Your task to perform on an android device: What time is it in Berlin? Image 0: 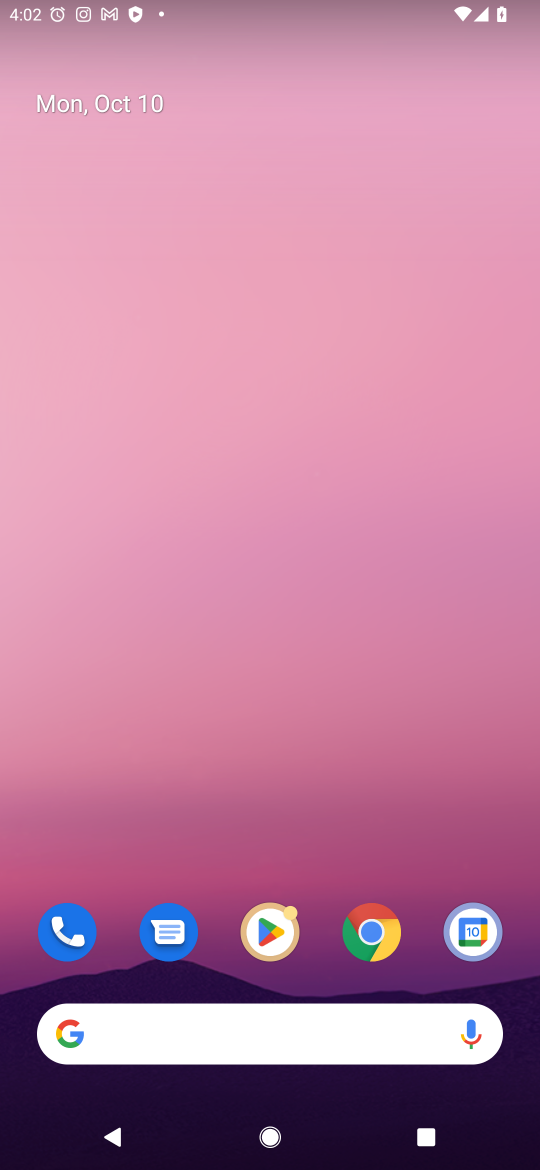
Step 0: press home button
Your task to perform on an android device: What time is it in Berlin? Image 1: 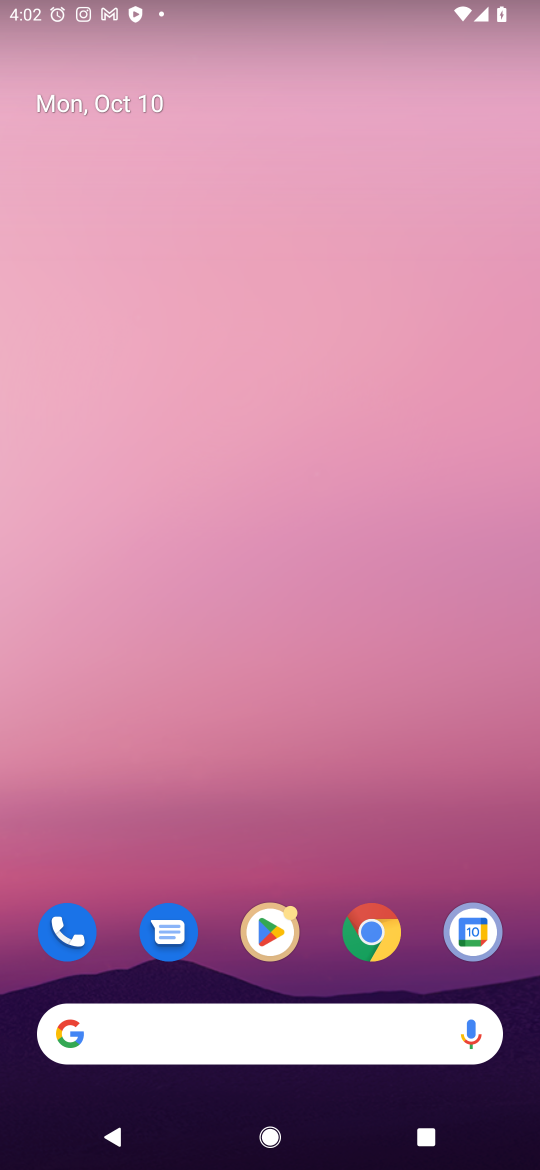
Step 1: click (305, 1037)
Your task to perform on an android device: What time is it in Berlin? Image 2: 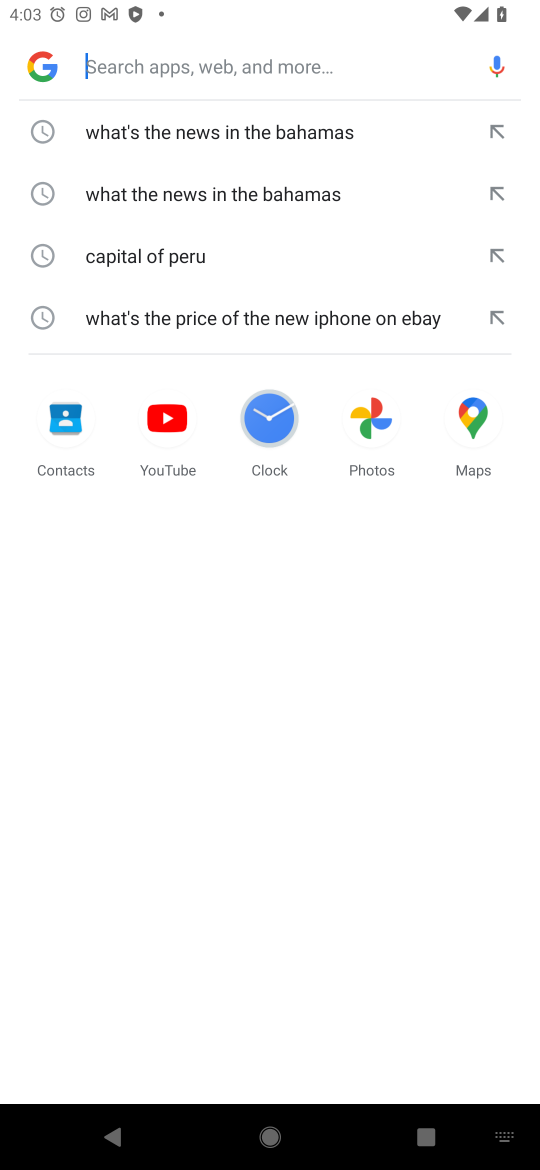
Step 2: type "What time is it in Berlin"
Your task to perform on an android device: What time is it in Berlin? Image 3: 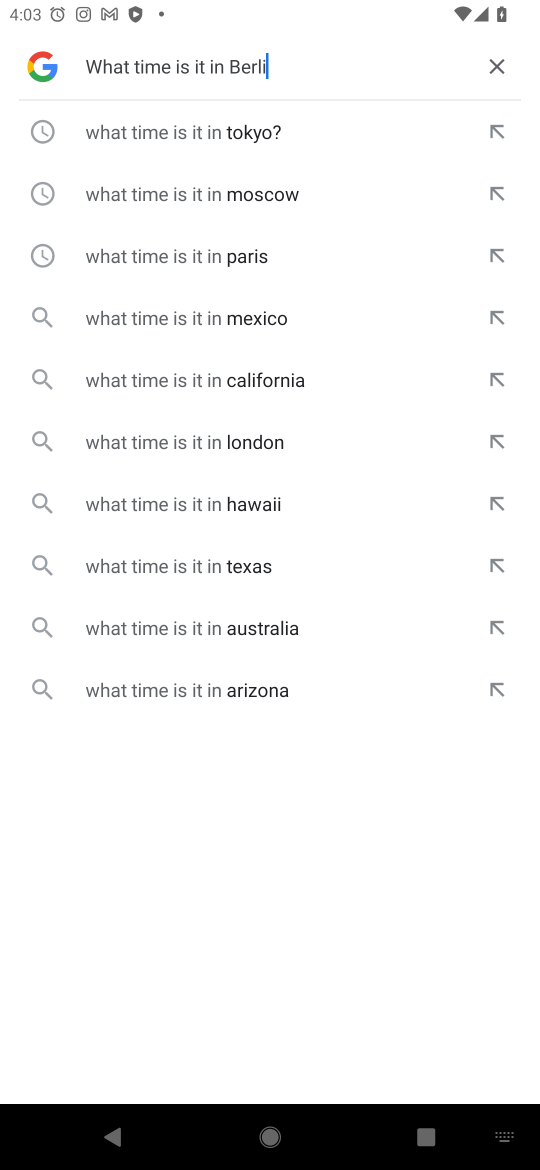
Step 3: press enter
Your task to perform on an android device: What time is it in Berlin? Image 4: 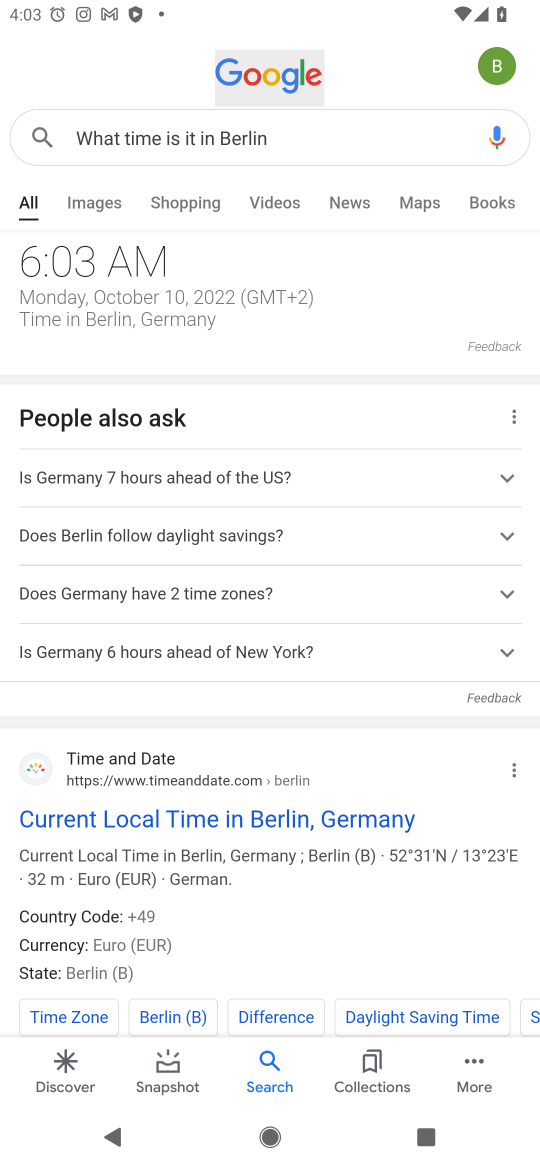
Step 4: task complete